Your task to perform on an android device: find which apps use the phone's location Image 0: 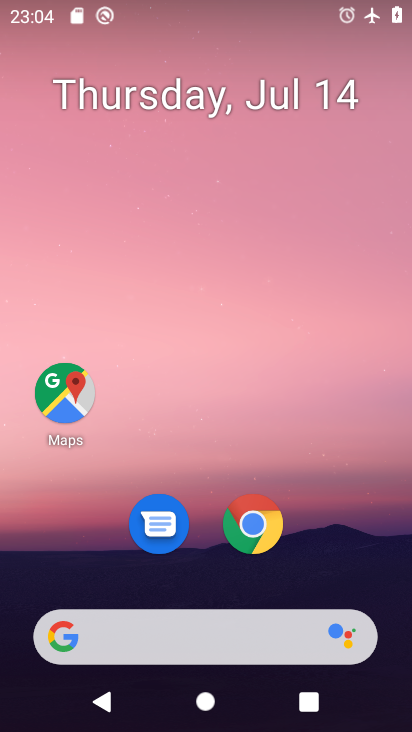
Step 0: drag from (327, 538) to (405, 73)
Your task to perform on an android device: find which apps use the phone's location Image 1: 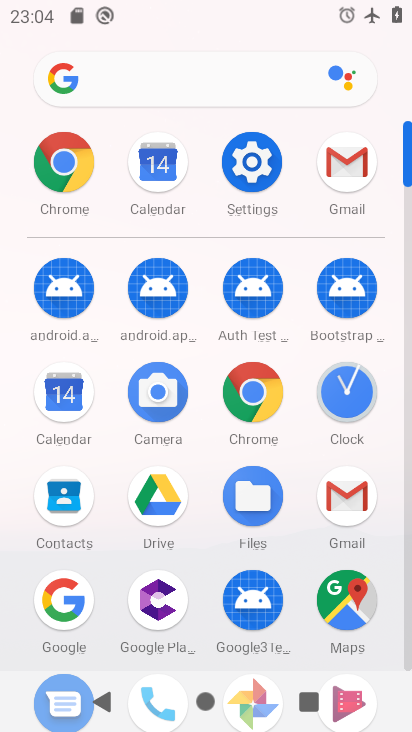
Step 1: click (254, 167)
Your task to perform on an android device: find which apps use the phone's location Image 2: 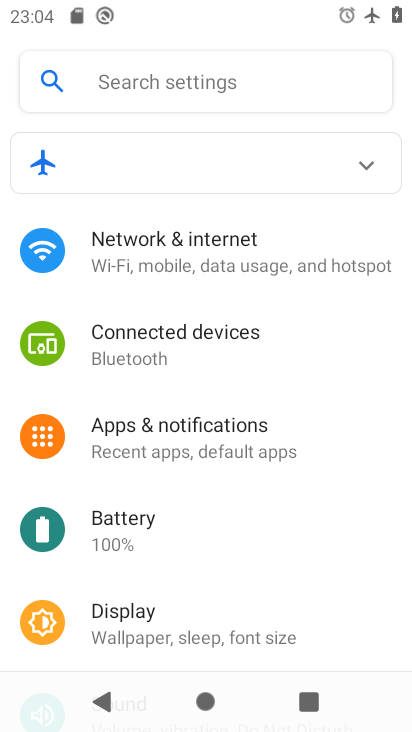
Step 2: drag from (245, 501) to (268, 94)
Your task to perform on an android device: find which apps use the phone's location Image 3: 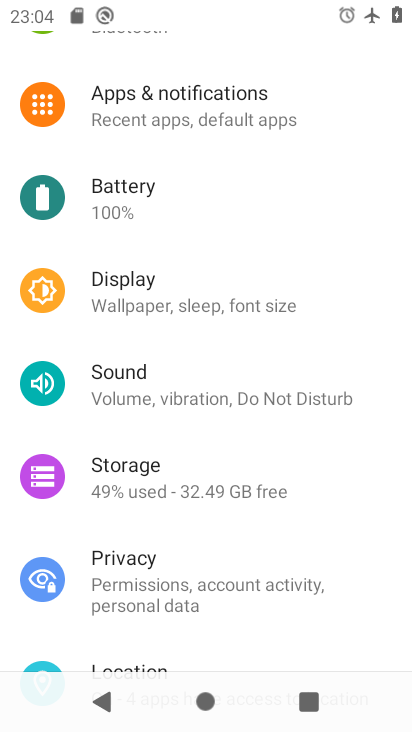
Step 3: drag from (218, 538) to (251, 188)
Your task to perform on an android device: find which apps use the phone's location Image 4: 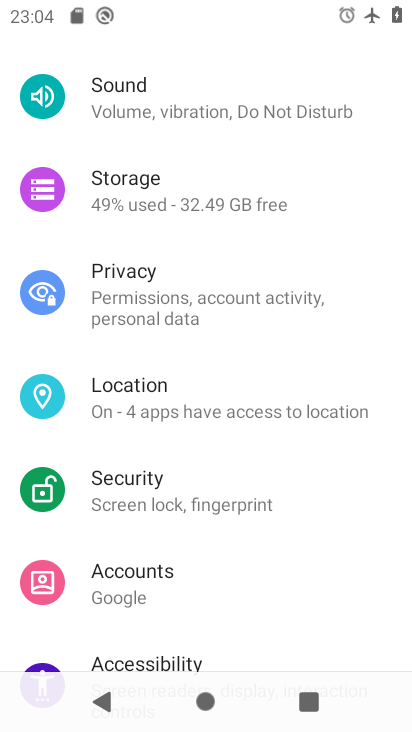
Step 4: click (219, 389)
Your task to perform on an android device: find which apps use the phone's location Image 5: 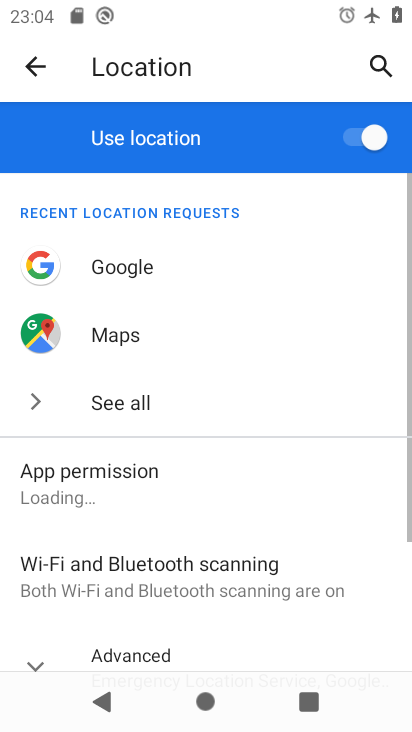
Step 5: click (143, 468)
Your task to perform on an android device: find which apps use the phone's location Image 6: 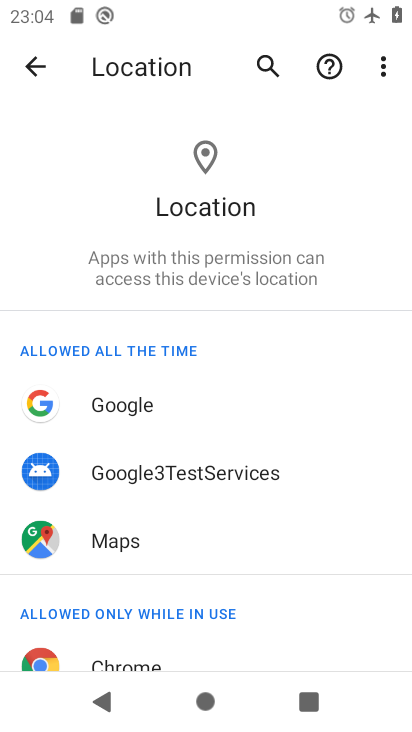
Step 6: task complete